Your task to perform on an android device: turn on notifications settings in the gmail app Image 0: 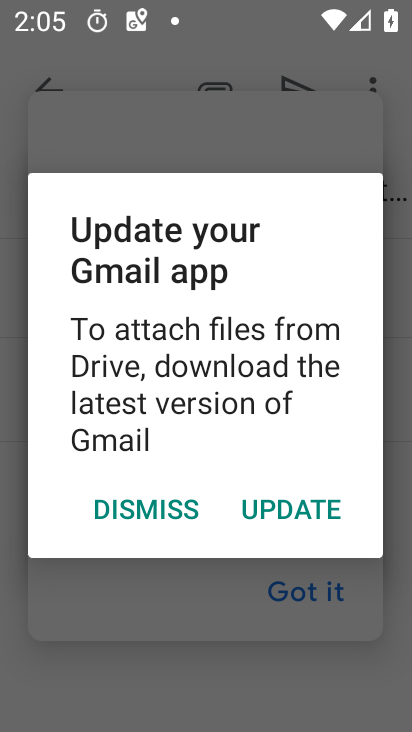
Step 0: press home button
Your task to perform on an android device: turn on notifications settings in the gmail app Image 1: 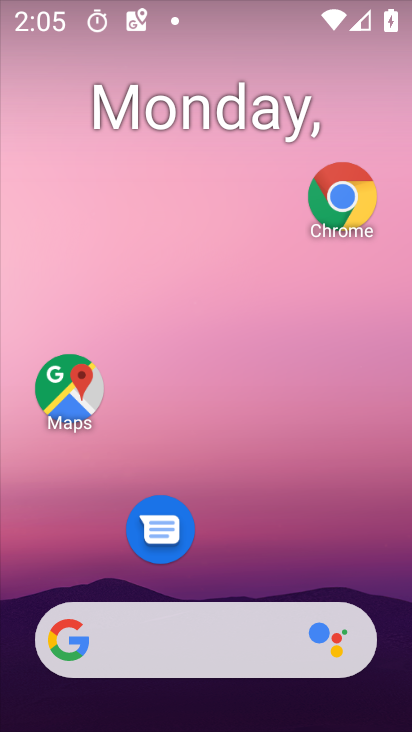
Step 1: drag from (196, 592) to (337, 43)
Your task to perform on an android device: turn on notifications settings in the gmail app Image 2: 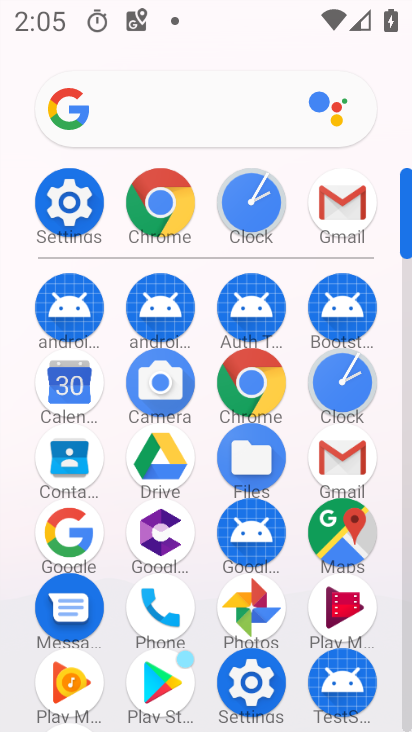
Step 2: click (344, 460)
Your task to perform on an android device: turn on notifications settings in the gmail app Image 3: 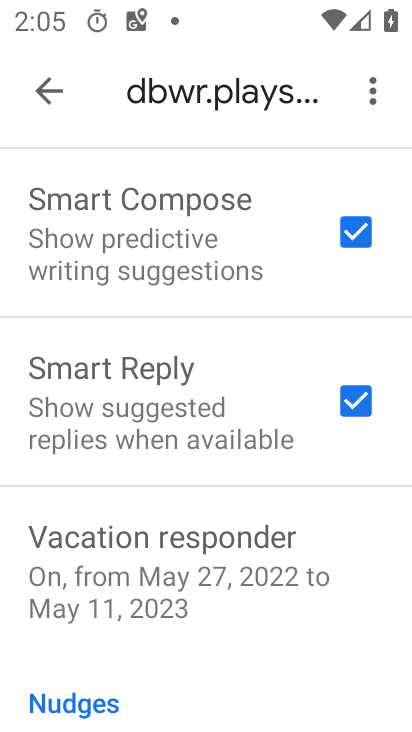
Step 3: click (43, 91)
Your task to perform on an android device: turn on notifications settings in the gmail app Image 4: 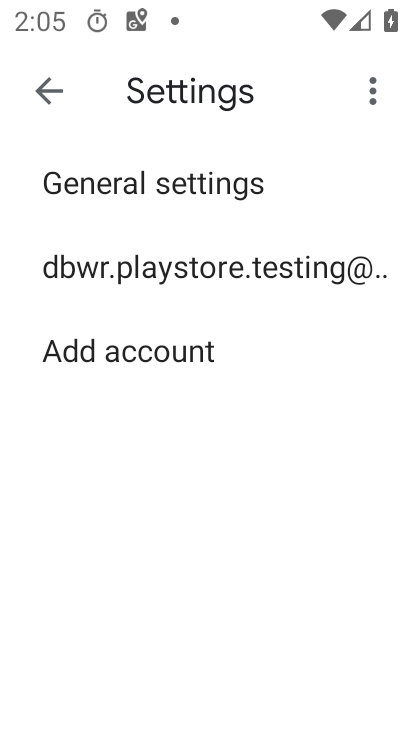
Step 4: drag from (43, 91) to (64, 190)
Your task to perform on an android device: turn on notifications settings in the gmail app Image 5: 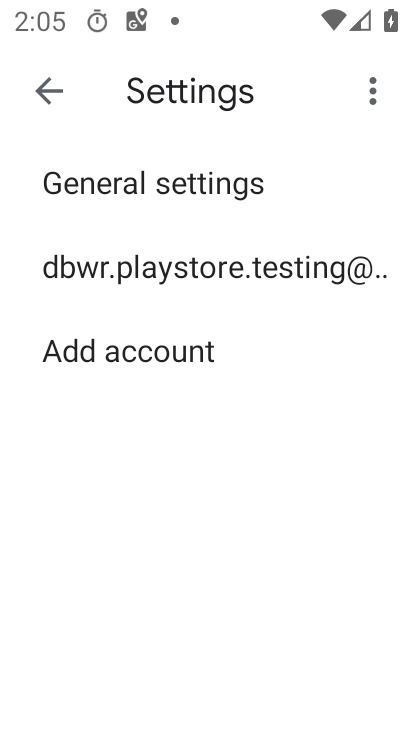
Step 5: click (88, 181)
Your task to perform on an android device: turn on notifications settings in the gmail app Image 6: 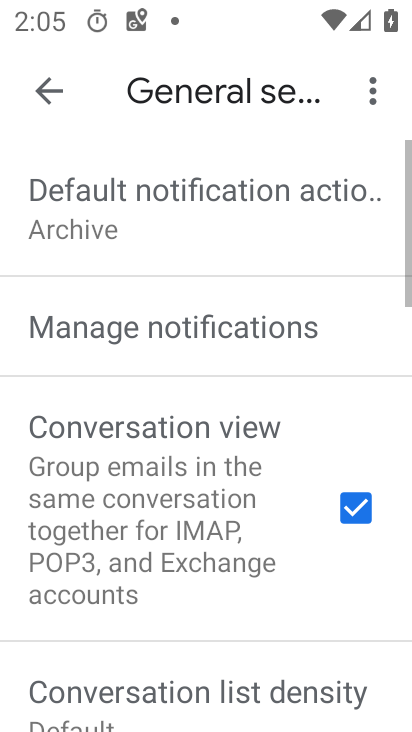
Step 6: click (184, 363)
Your task to perform on an android device: turn on notifications settings in the gmail app Image 7: 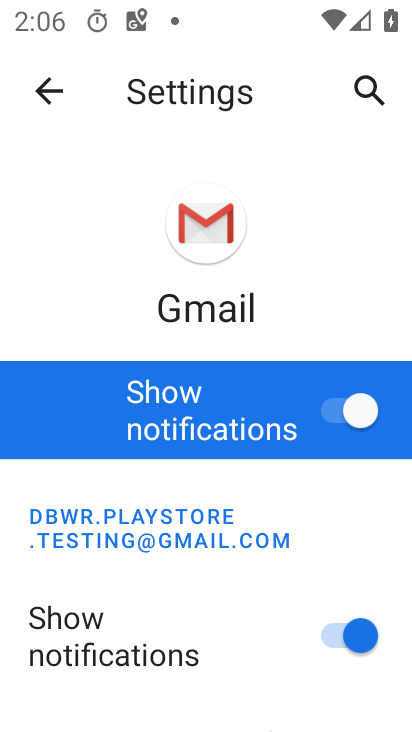
Step 7: task complete